Your task to perform on an android device: Open Google Maps and go to "Timeline" Image 0: 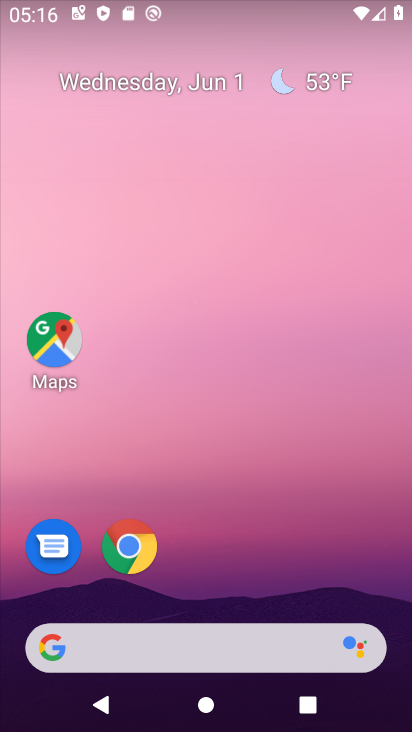
Step 0: click (60, 342)
Your task to perform on an android device: Open Google Maps and go to "Timeline" Image 1: 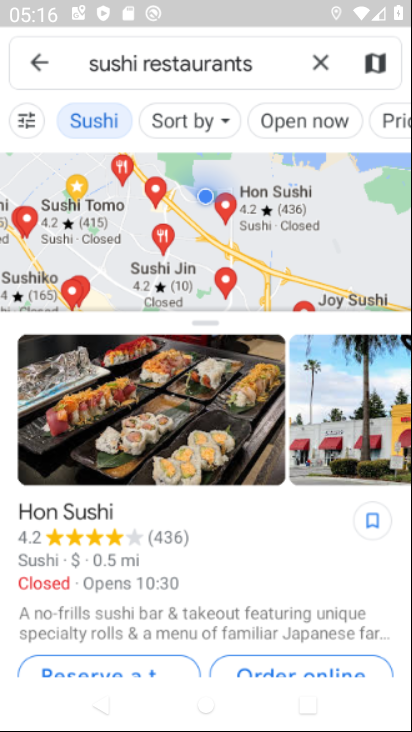
Step 1: click (39, 49)
Your task to perform on an android device: Open Google Maps and go to "Timeline" Image 2: 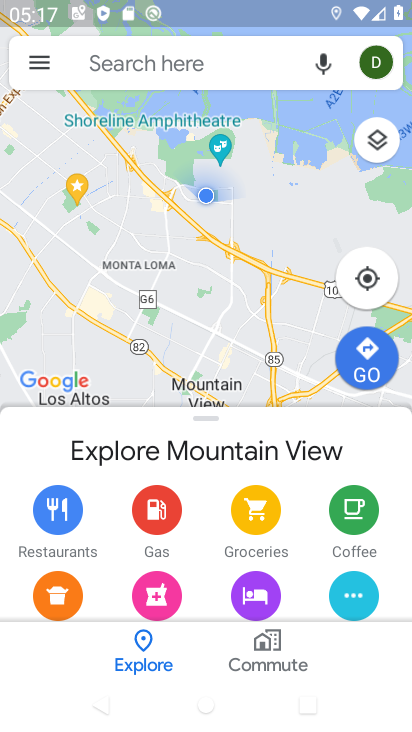
Step 2: click (42, 63)
Your task to perform on an android device: Open Google Maps and go to "Timeline" Image 3: 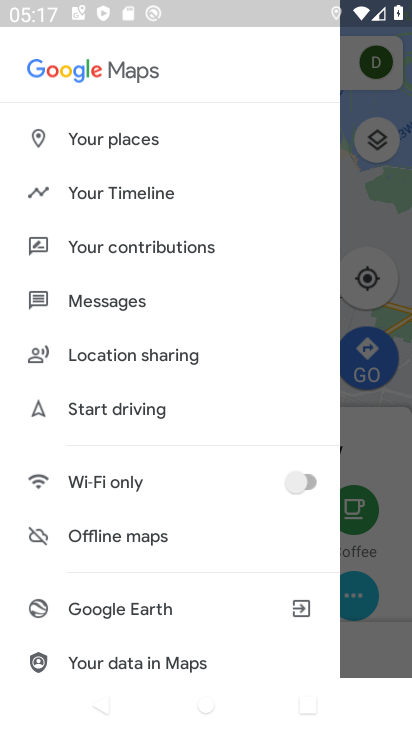
Step 3: click (105, 187)
Your task to perform on an android device: Open Google Maps and go to "Timeline" Image 4: 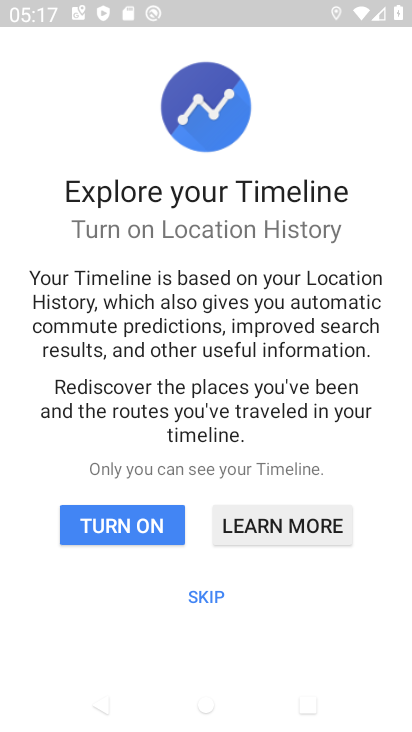
Step 4: click (192, 595)
Your task to perform on an android device: Open Google Maps and go to "Timeline" Image 5: 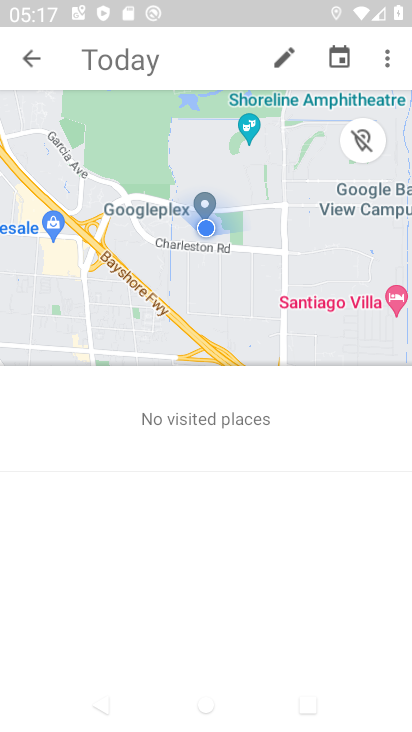
Step 5: task complete